Your task to perform on an android device: Open CNN.com Image 0: 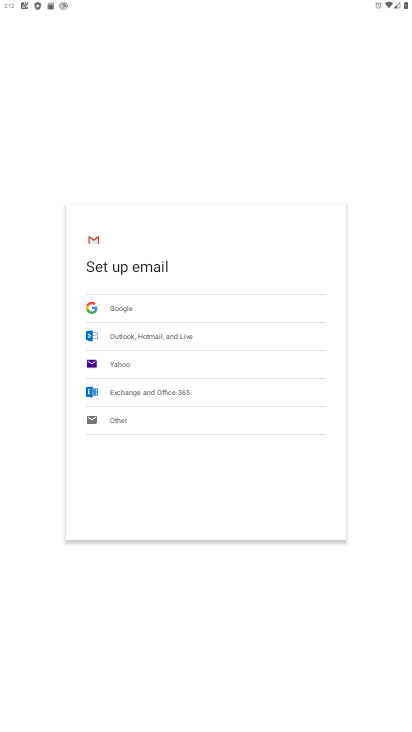
Step 0: press home button
Your task to perform on an android device: Open CNN.com Image 1: 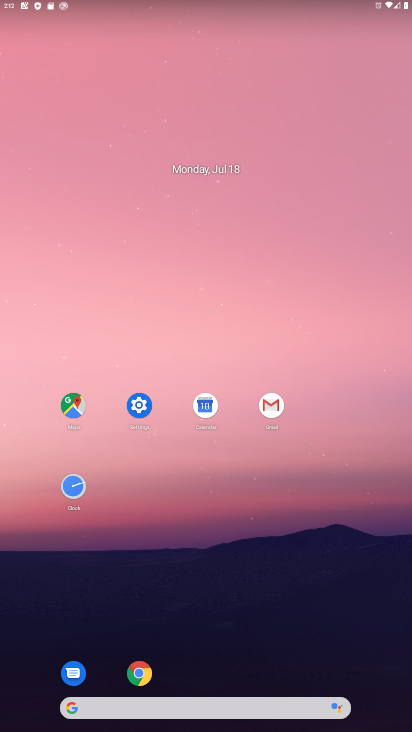
Step 1: click (137, 669)
Your task to perform on an android device: Open CNN.com Image 2: 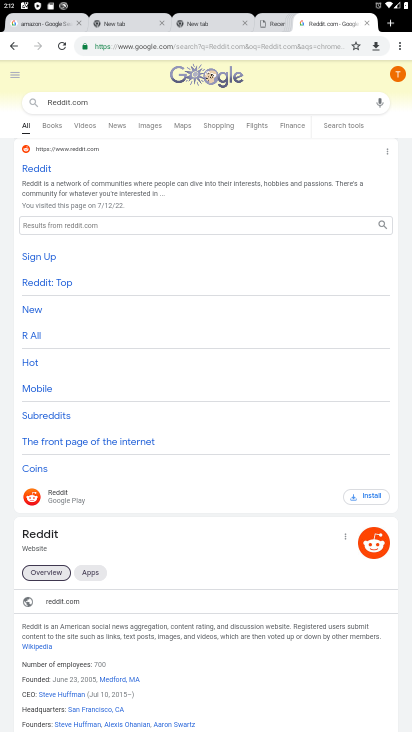
Step 2: click (280, 49)
Your task to perform on an android device: Open CNN.com Image 3: 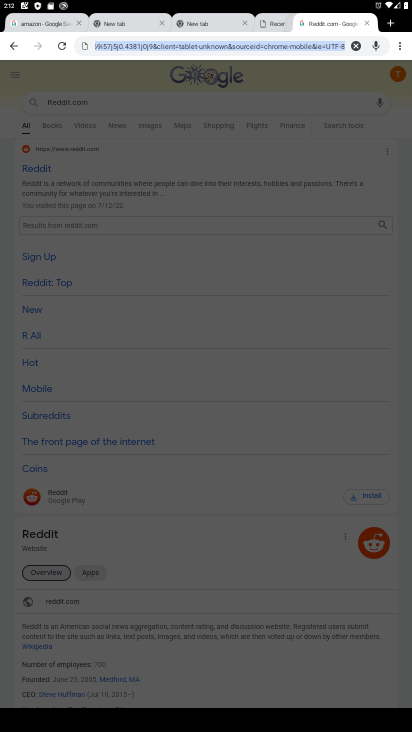
Step 3: click (357, 42)
Your task to perform on an android device: Open CNN.com Image 4: 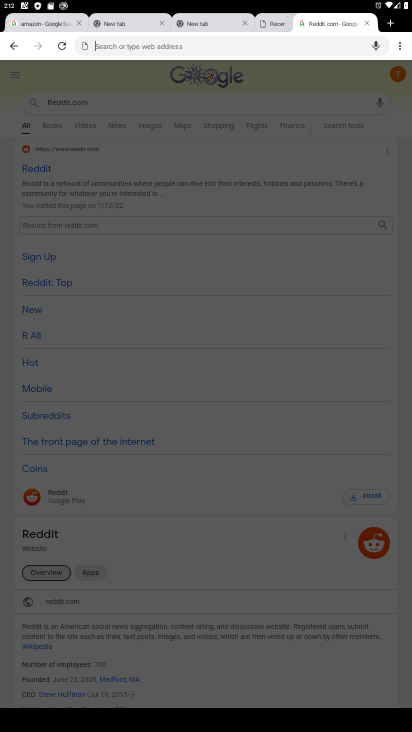
Step 4: type "CNN.com"
Your task to perform on an android device: Open CNN.com Image 5: 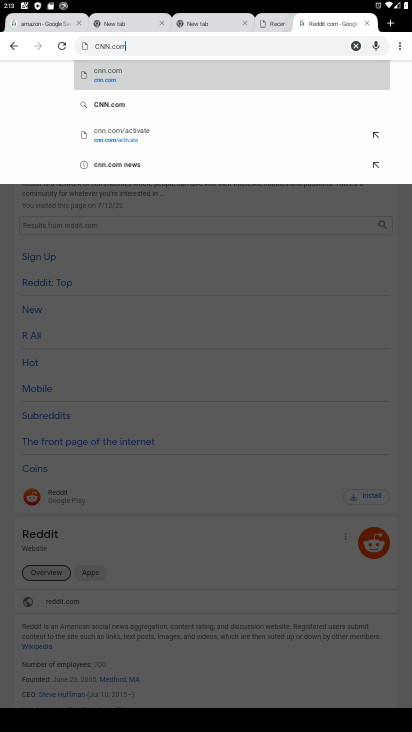
Step 5: click (105, 98)
Your task to perform on an android device: Open CNN.com Image 6: 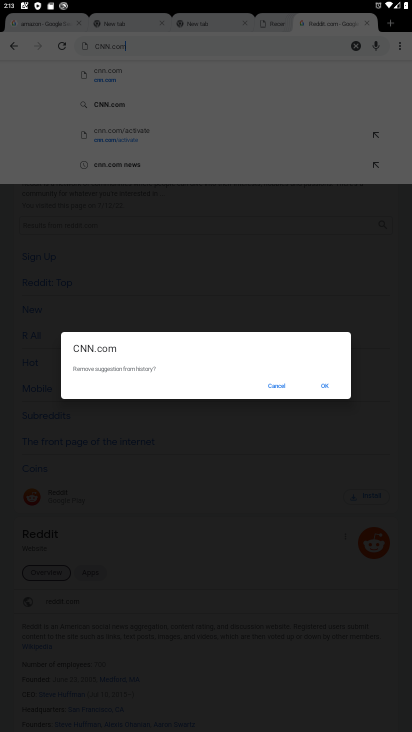
Step 6: click (324, 384)
Your task to perform on an android device: Open CNN.com Image 7: 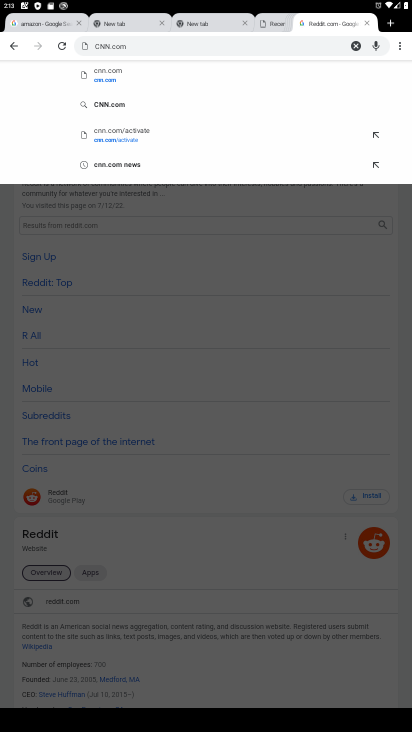
Step 7: click (101, 97)
Your task to perform on an android device: Open CNN.com Image 8: 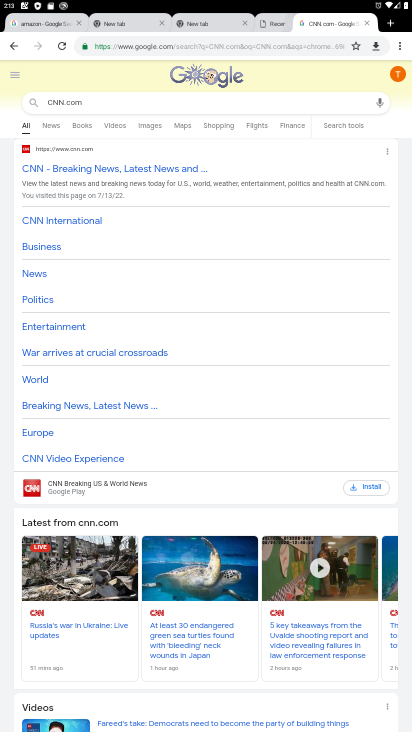
Step 8: task complete